Your task to perform on an android device: open the mobile data screen to see how much data has been used Image 0: 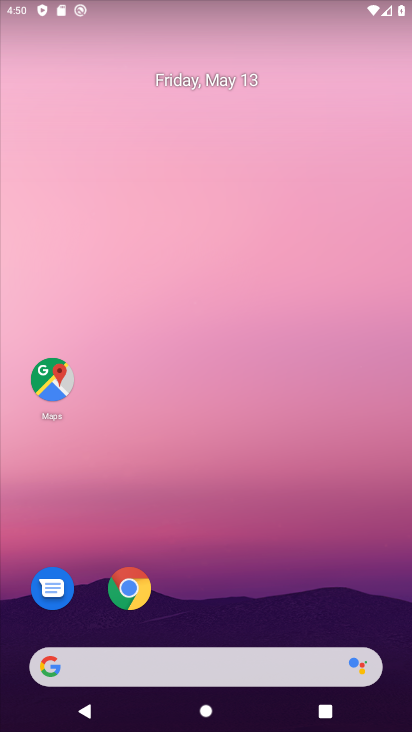
Step 0: drag from (254, 636) to (344, 235)
Your task to perform on an android device: open the mobile data screen to see how much data has been used Image 1: 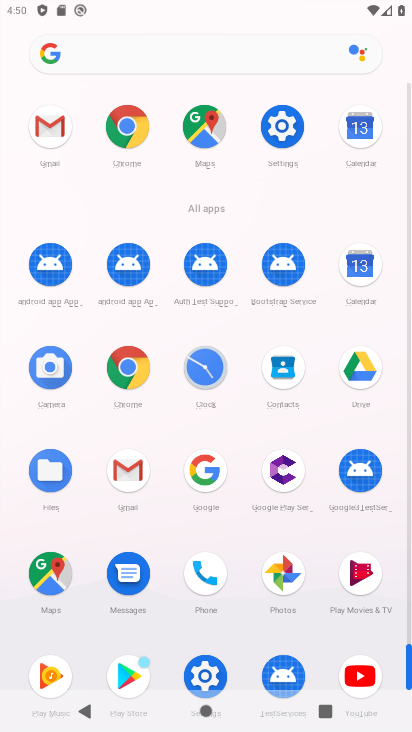
Step 1: drag from (227, 610) to (258, 415)
Your task to perform on an android device: open the mobile data screen to see how much data has been used Image 2: 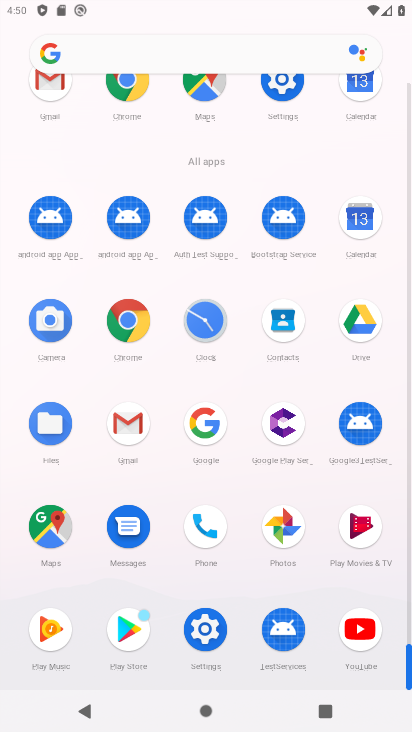
Step 2: click (212, 623)
Your task to perform on an android device: open the mobile data screen to see how much data has been used Image 3: 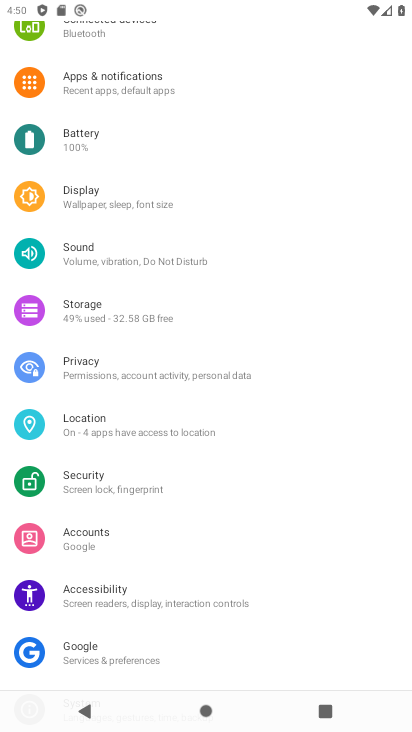
Step 3: drag from (199, 140) to (179, 481)
Your task to perform on an android device: open the mobile data screen to see how much data has been used Image 4: 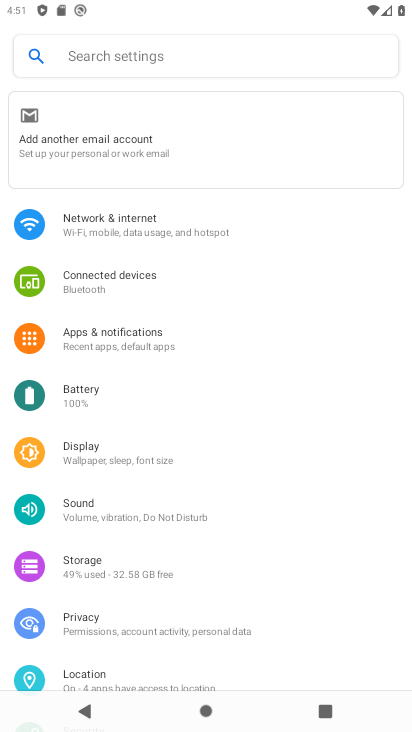
Step 4: click (173, 238)
Your task to perform on an android device: open the mobile data screen to see how much data has been used Image 5: 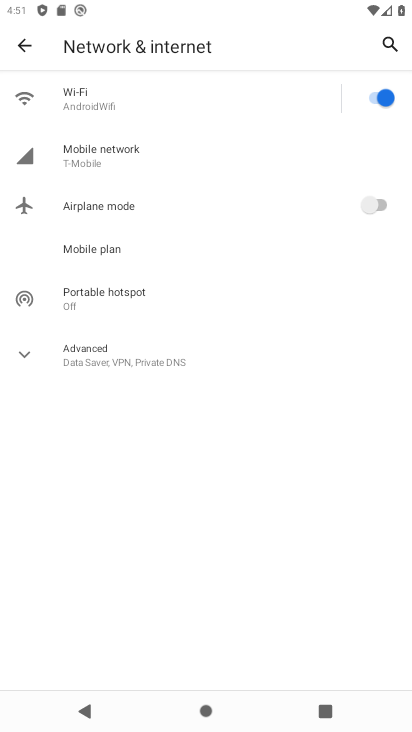
Step 5: click (142, 173)
Your task to perform on an android device: open the mobile data screen to see how much data has been used Image 6: 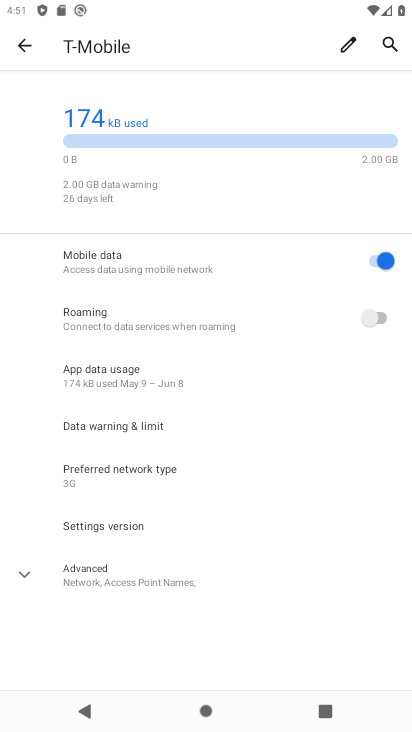
Step 6: task complete